Your task to perform on an android device: Open calendar and show me the third week of next month Image 0: 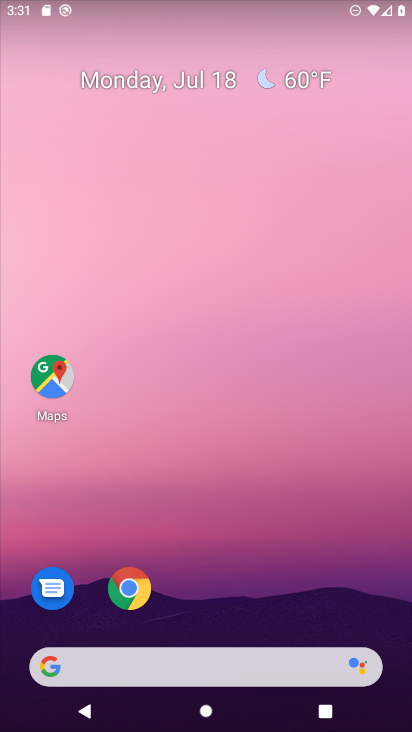
Step 0: drag from (243, 623) to (296, 0)
Your task to perform on an android device: Open calendar and show me the third week of next month Image 1: 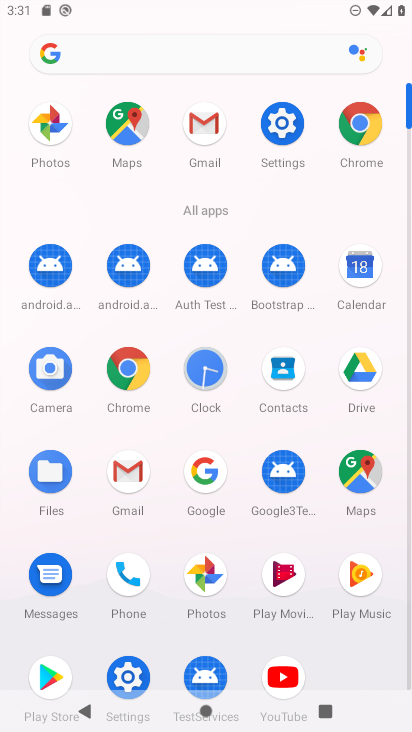
Step 1: click (361, 262)
Your task to perform on an android device: Open calendar and show me the third week of next month Image 2: 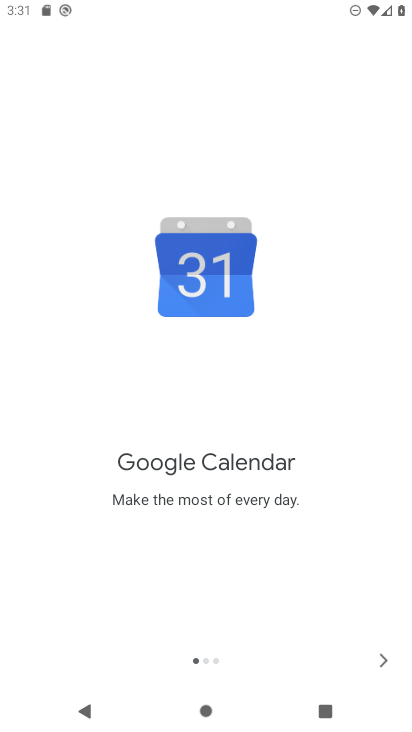
Step 2: click (392, 651)
Your task to perform on an android device: Open calendar and show me the third week of next month Image 3: 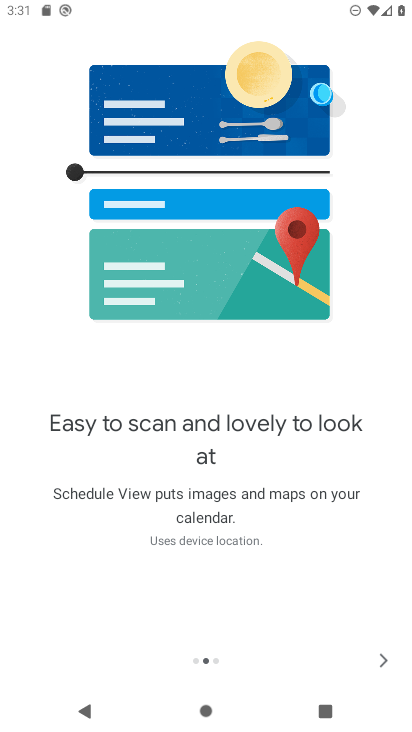
Step 3: click (378, 658)
Your task to perform on an android device: Open calendar and show me the third week of next month Image 4: 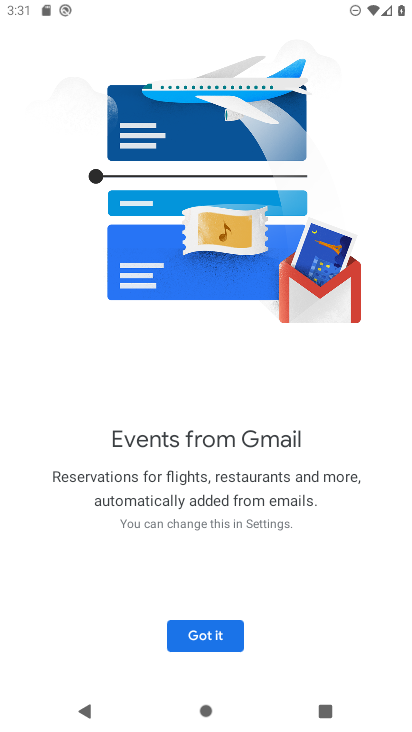
Step 4: click (220, 634)
Your task to perform on an android device: Open calendar and show me the third week of next month Image 5: 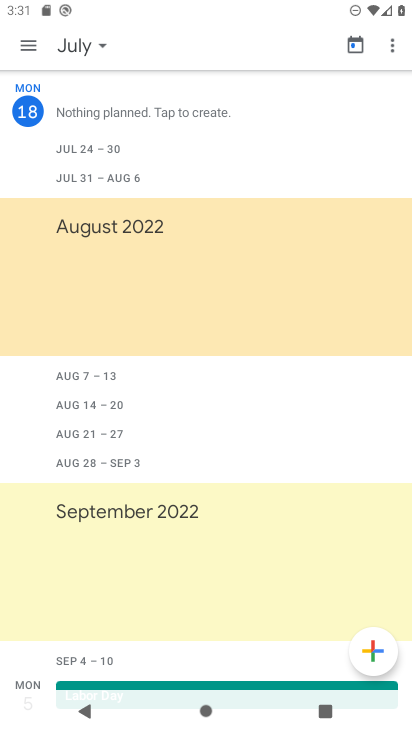
Step 5: click (99, 40)
Your task to perform on an android device: Open calendar and show me the third week of next month Image 6: 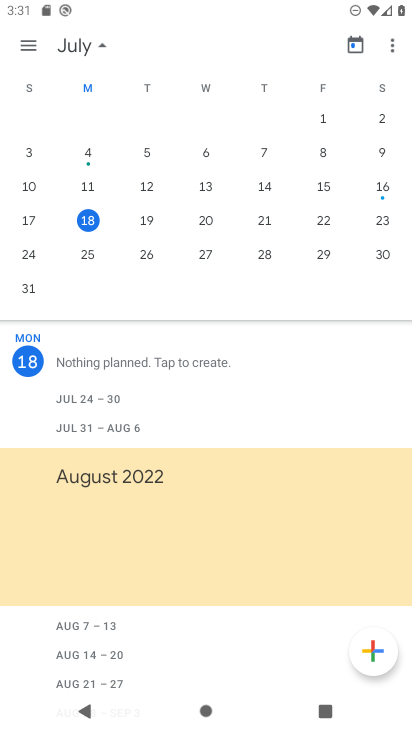
Step 6: drag from (359, 195) to (3, 215)
Your task to perform on an android device: Open calendar and show me the third week of next month Image 7: 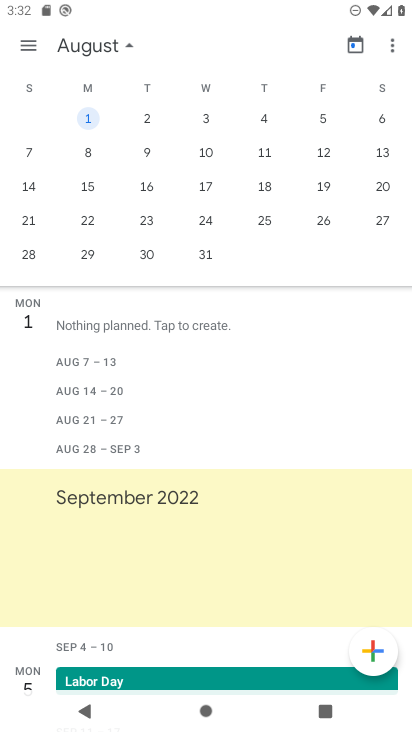
Step 7: click (32, 181)
Your task to perform on an android device: Open calendar and show me the third week of next month Image 8: 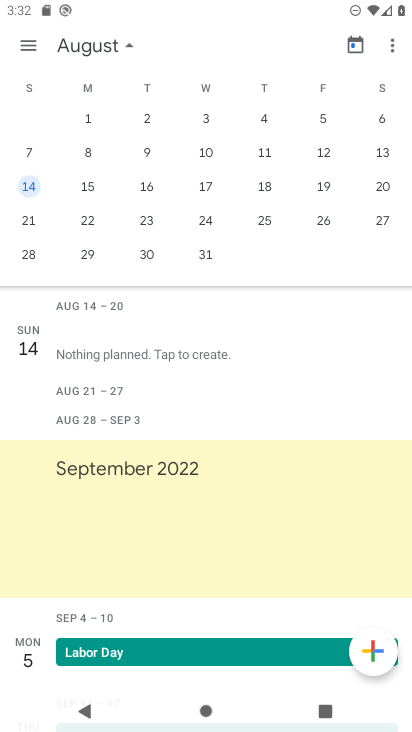
Step 8: click (17, 42)
Your task to perform on an android device: Open calendar and show me the third week of next month Image 9: 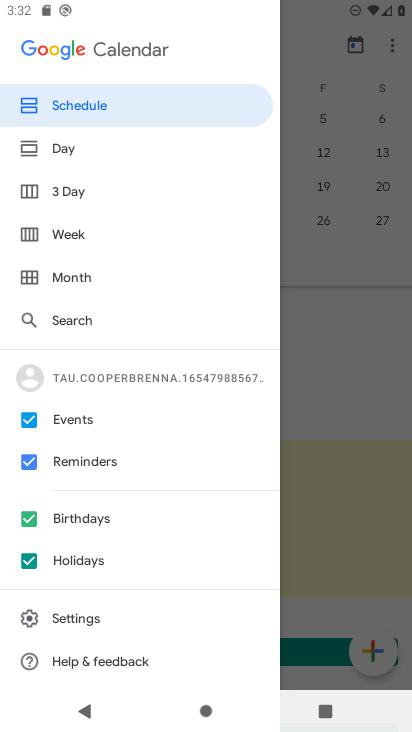
Step 9: click (47, 236)
Your task to perform on an android device: Open calendar and show me the third week of next month Image 10: 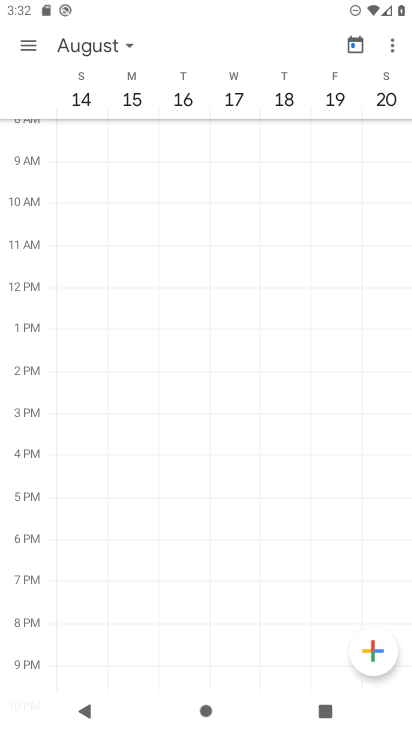
Step 10: task complete